Your task to perform on an android device: turn off priority inbox in the gmail app Image 0: 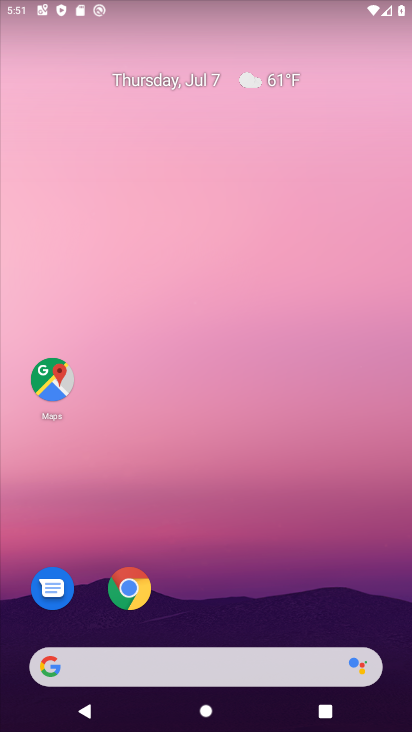
Step 0: drag from (209, 620) to (269, 55)
Your task to perform on an android device: turn off priority inbox in the gmail app Image 1: 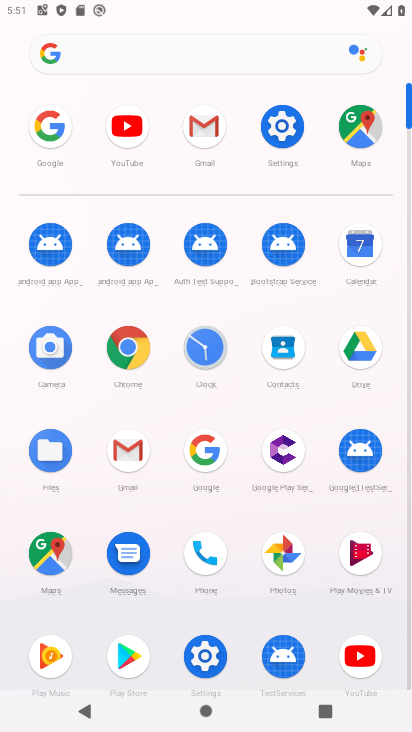
Step 1: click (210, 125)
Your task to perform on an android device: turn off priority inbox in the gmail app Image 2: 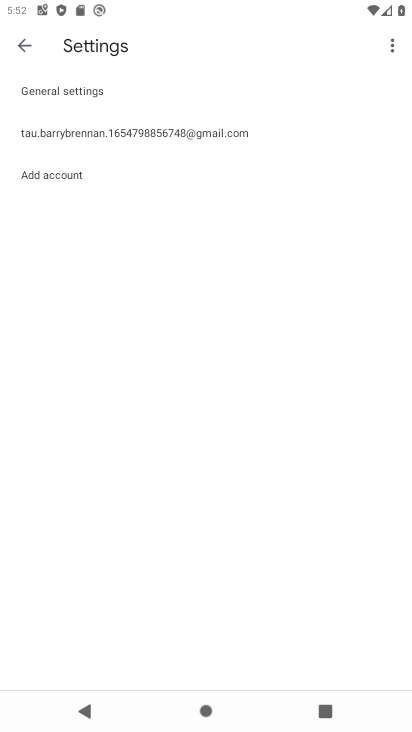
Step 2: click (60, 119)
Your task to perform on an android device: turn off priority inbox in the gmail app Image 3: 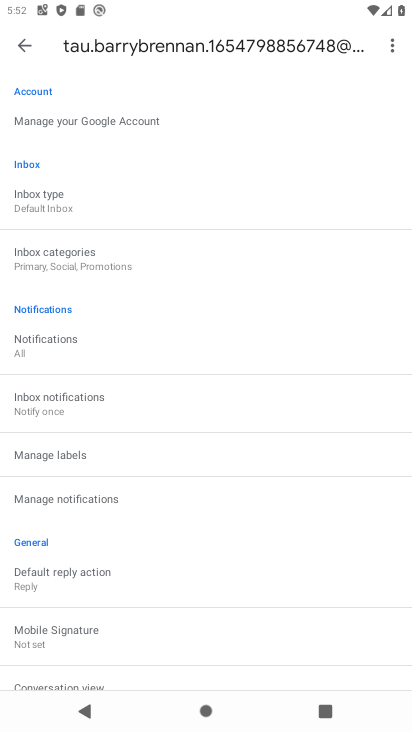
Step 3: click (49, 212)
Your task to perform on an android device: turn off priority inbox in the gmail app Image 4: 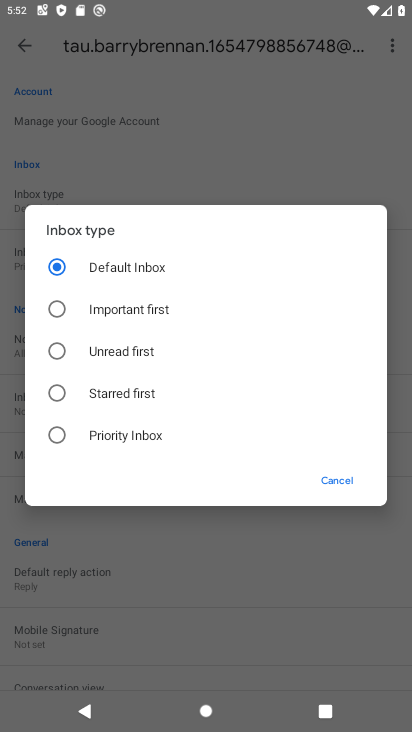
Step 4: task complete